Your task to perform on an android device: Show me popular videos on Youtube Image 0: 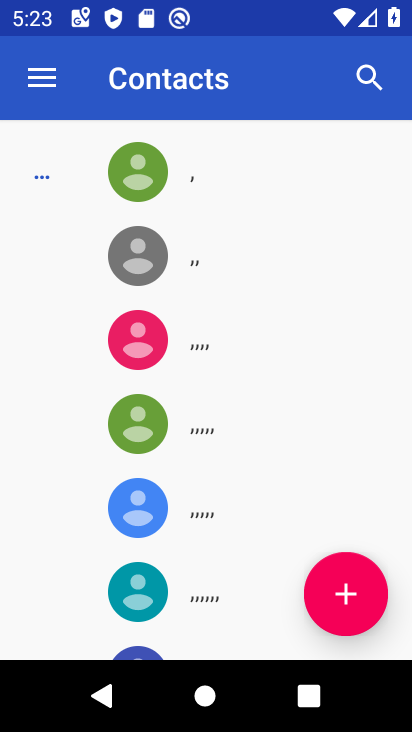
Step 0: press home button
Your task to perform on an android device: Show me popular videos on Youtube Image 1: 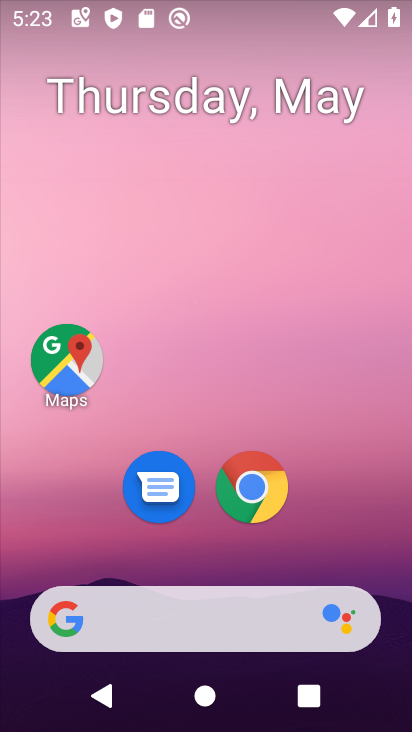
Step 1: drag from (348, 521) to (279, 23)
Your task to perform on an android device: Show me popular videos on Youtube Image 2: 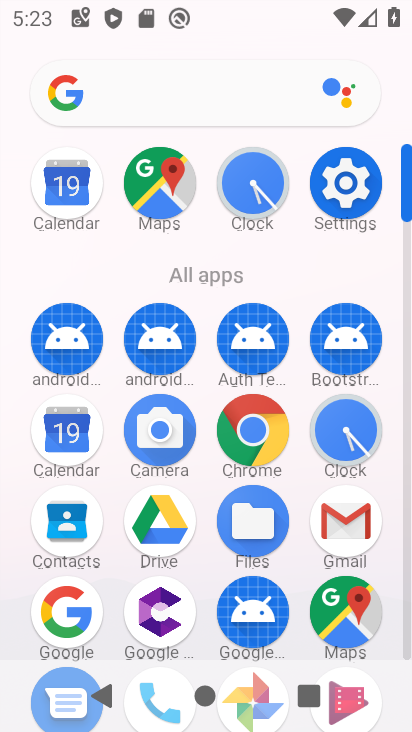
Step 2: drag from (297, 483) to (292, 58)
Your task to perform on an android device: Show me popular videos on Youtube Image 3: 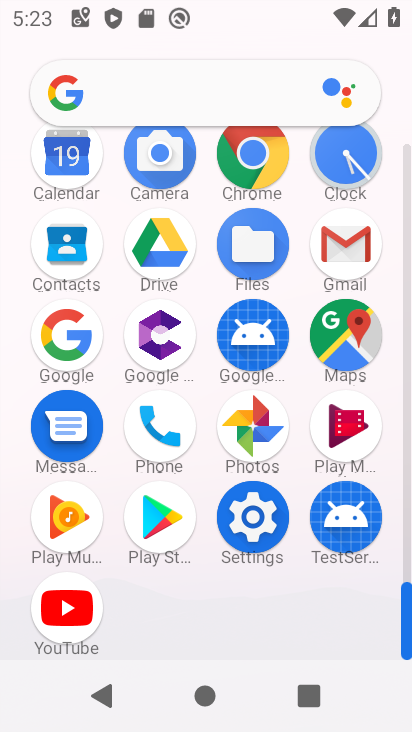
Step 3: click (67, 593)
Your task to perform on an android device: Show me popular videos on Youtube Image 4: 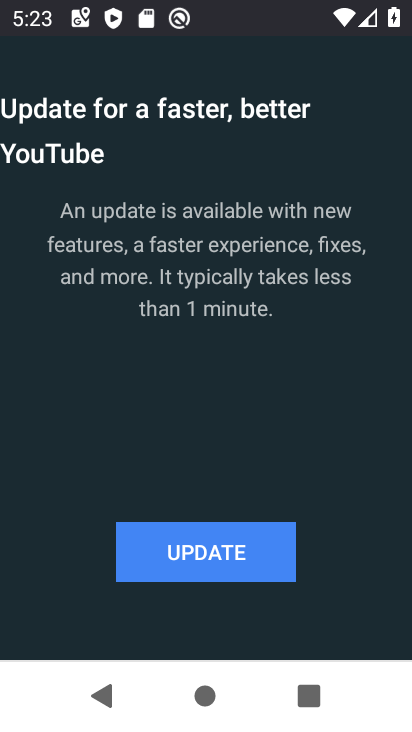
Step 4: click (213, 549)
Your task to perform on an android device: Show me popular videos on Youtube Image 5: 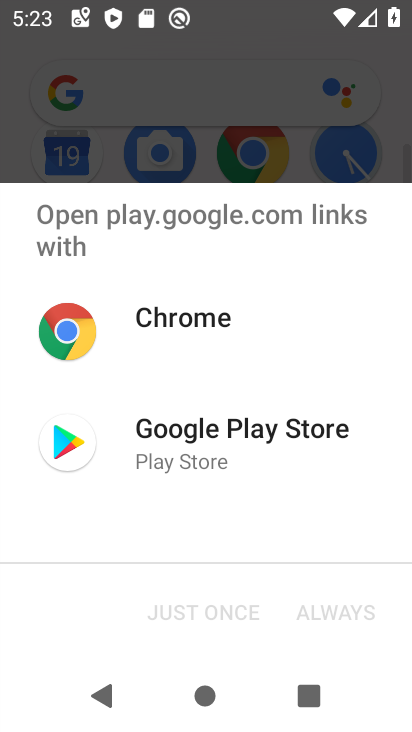
Step 5: click (204, 433)
Your task to perform on an android device: Show me popular videos on Youtube Image 6: 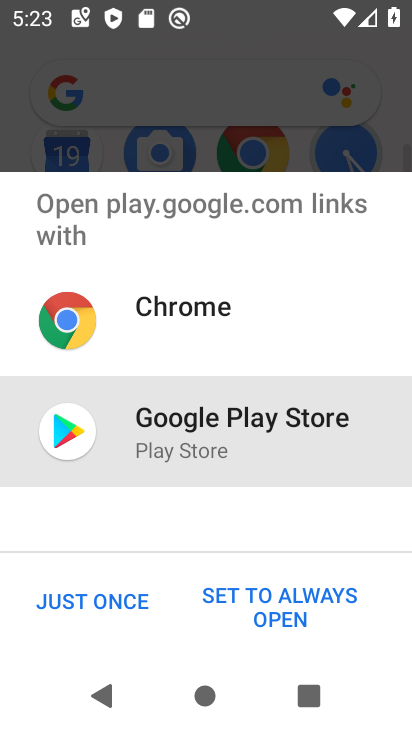
Step 6: click (113, 598)
Your task to perform on an android device: Show me popular videos on Youtube Image 7: 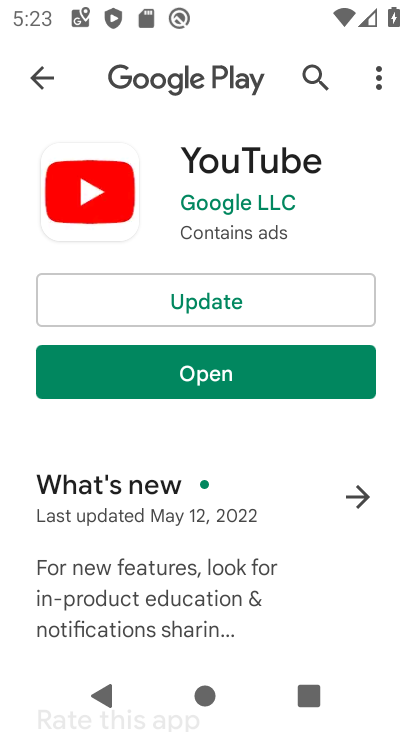
Step 7: click (204, 296)
Your task to perform on an android device: Show me popular videos on Youtube Image 8: 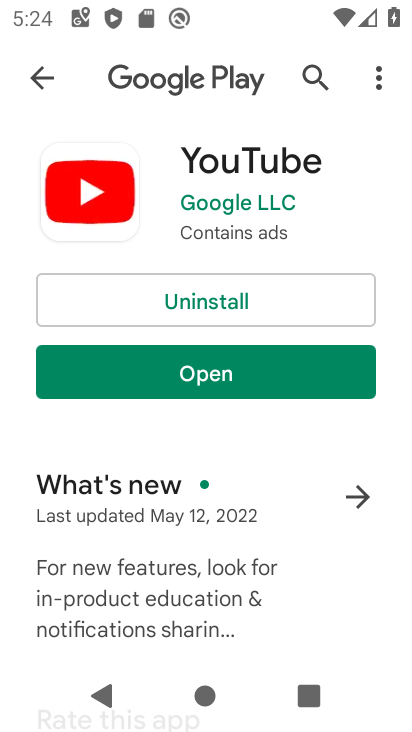
Step 8: click (274, 377)
Your task to perform on an android device: Show me popular videos on Youtube Image 9: 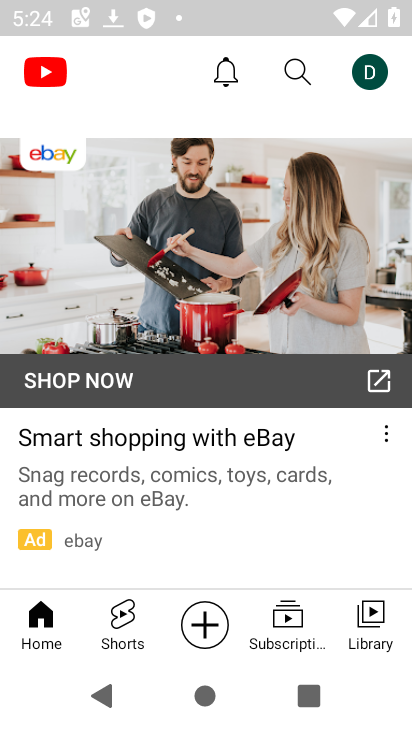
Step 9: click (287, 61)
Your task to perform on an android device: Show me popular videos on Youtube Image 10: 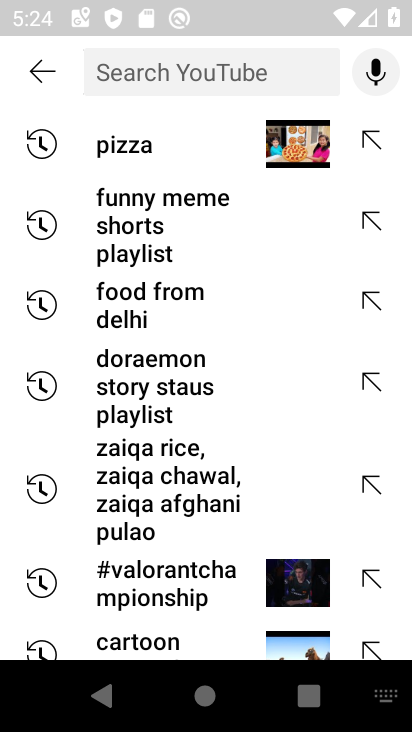
Step 10: type "popular videos"
Your task to perform on an android device: Show me popular videos on Youtube Image 11: 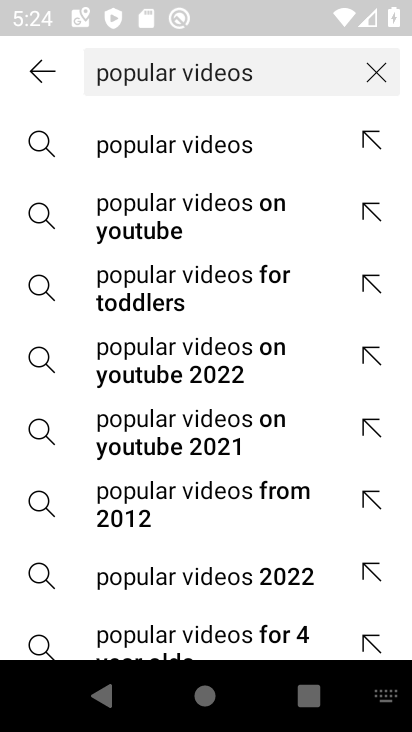
Step 11: click (255, 201)
Your task to perform on an android device: Show me popular videos on Youtube Image 12: 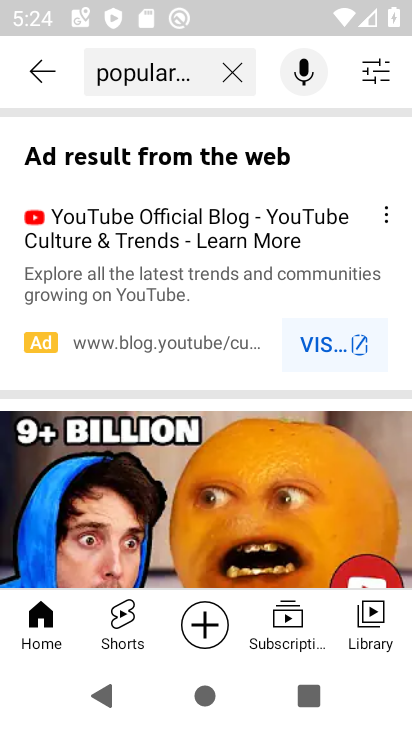
Step 12: drag from (276, 493) to (306, 143)
Your task to perform on an android device: Show me popular videos on Youtube Image 13: 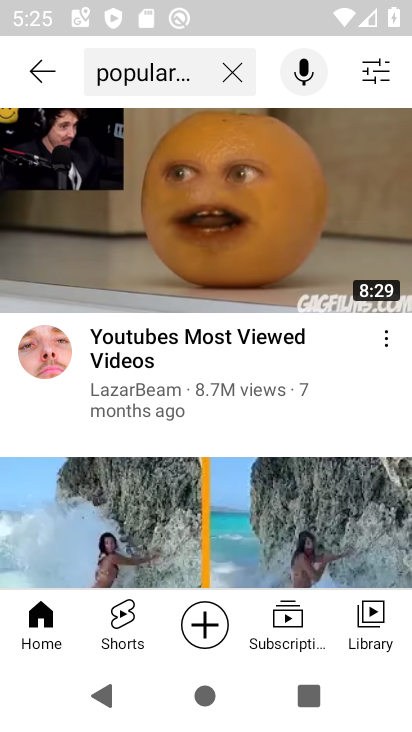
Step 13: drag from (233, 459) to (241, 193)
Your task to perform on an android device: Show me popular videos on Youtube Image 14: 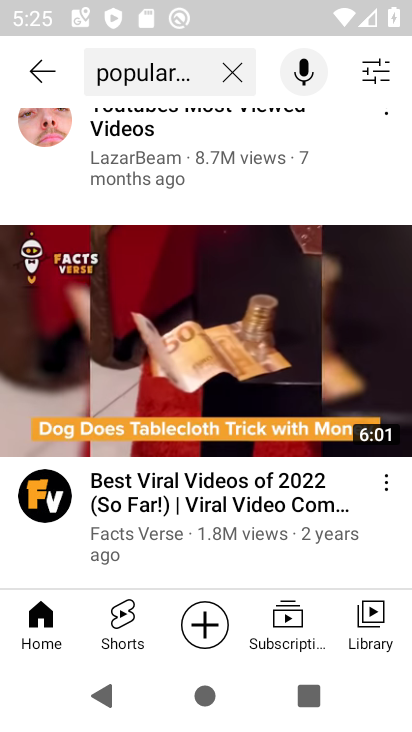
Step 14: drag from (226, 534) to (281, 220)
Your task to perform on an android device: Show me popular videos on Youtube Image 15: 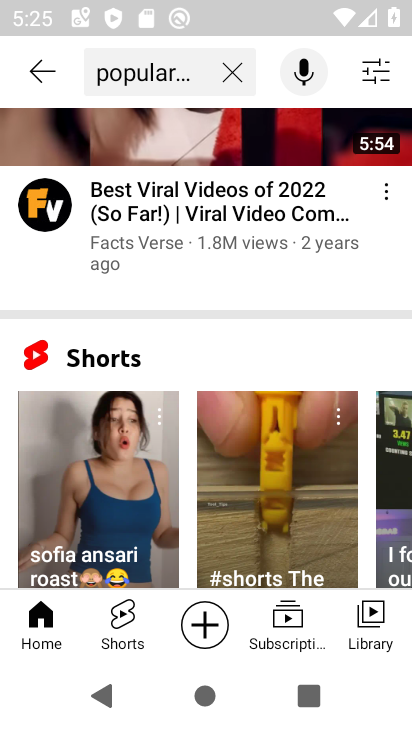
Step 15: click (380, 66)
Your task to perform on an android device: Show me popular videos on Youtube Image 16: 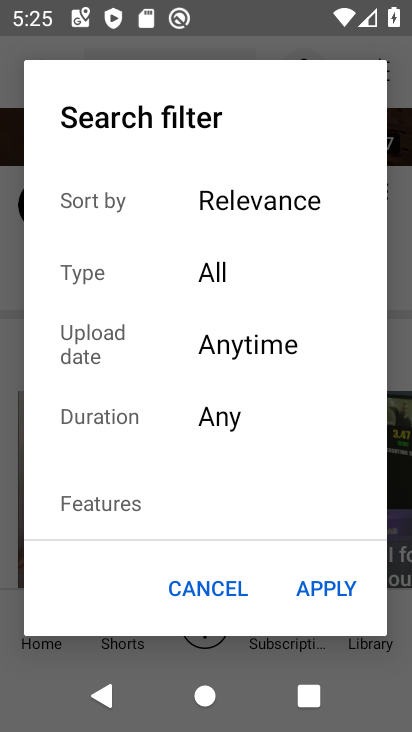
Step 16: click (228, 587)
Your task to perform on an android device: Show me popular videos on Youtube Image 17: 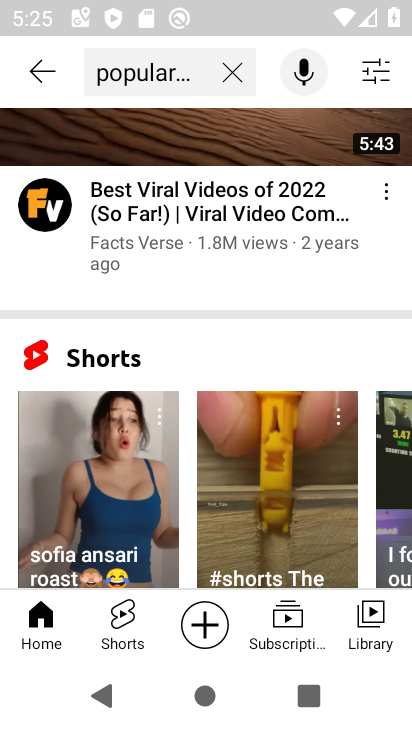
Step 17: task complete